Your task to perform on an android device: Do I have any events today? Image 0: 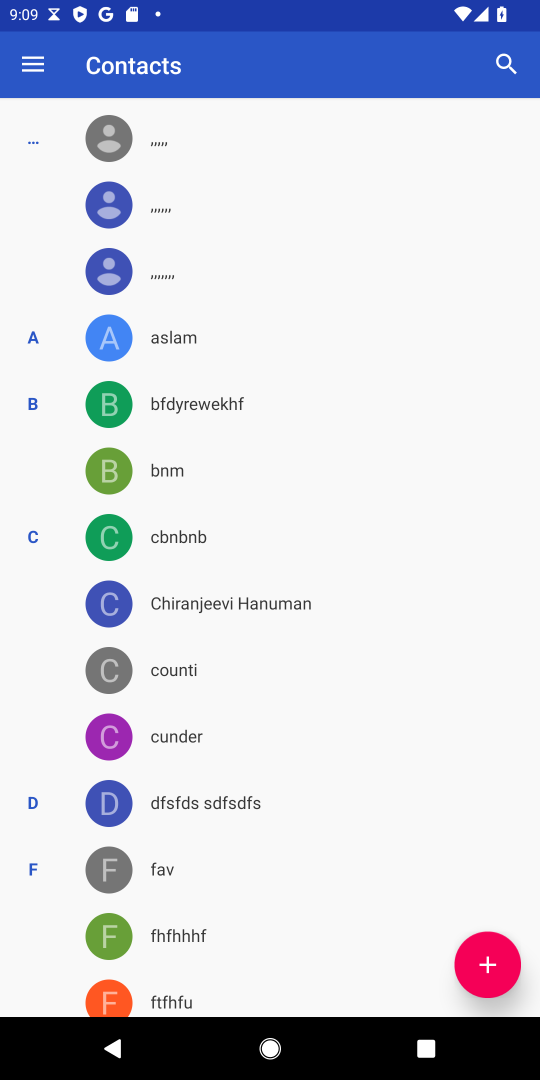
Step 0: press home button
Your task to perform on an android device: Do I have any events today? Image 1: 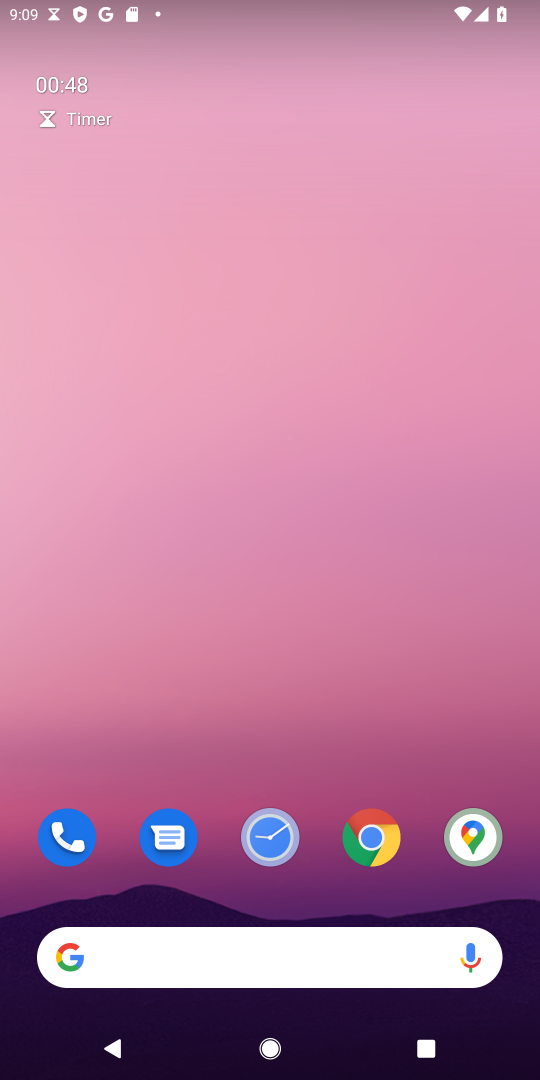
Step 1: drag from (320, 872) to (313, 141)
Your task to perform on an android device: Do I have any events today? Image 2: 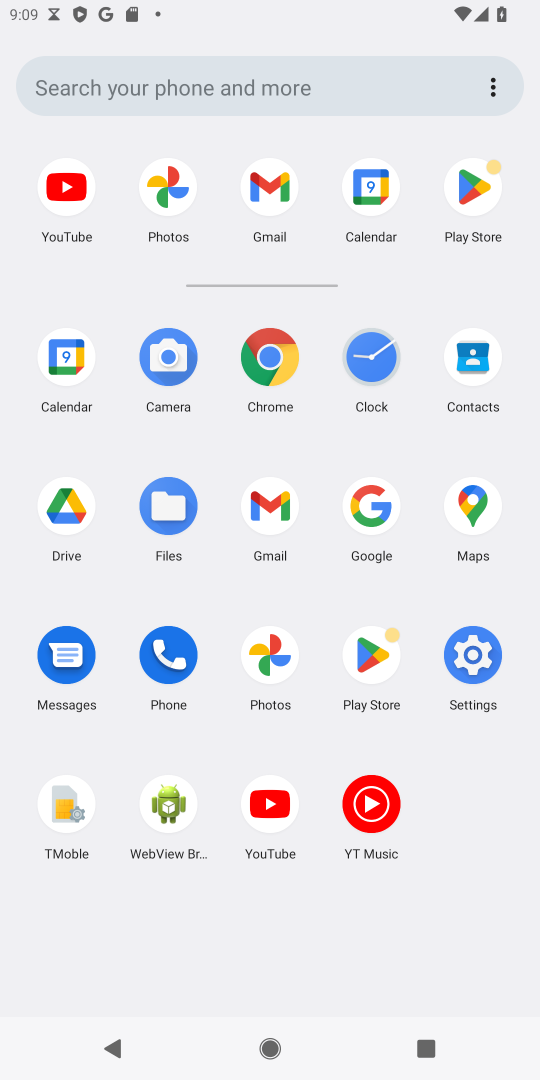
Step 2: click (59, 353)
Your task to perform on an android device: Do I have any events today? Image 3: 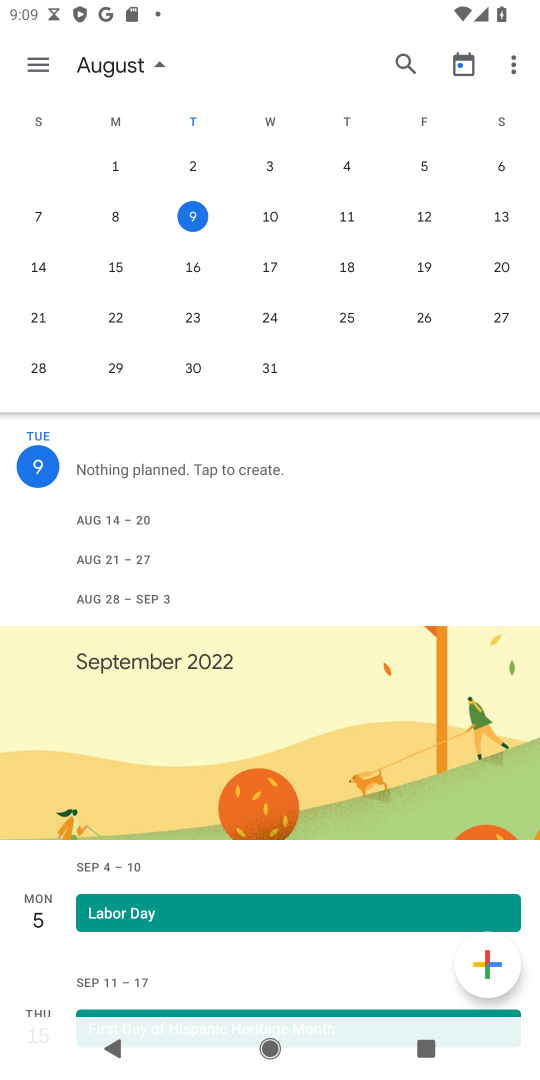
Step 3: click (34, 62)
Your task to perform on an android device: Do I have any events today? Image 4: 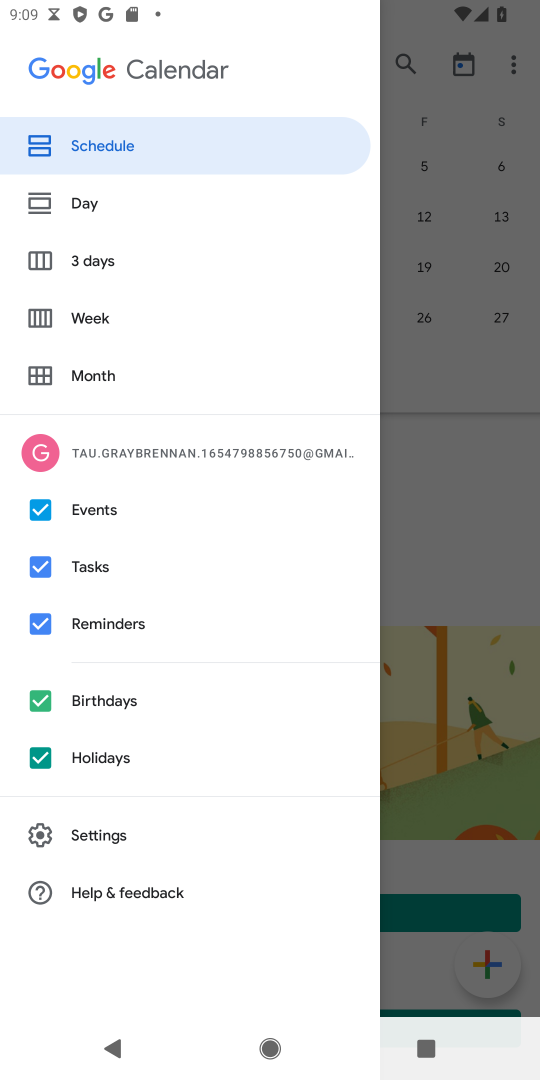
Step 4: click (40, 756)
Your task to perform on an android device: Do I have any events today? Image 5: 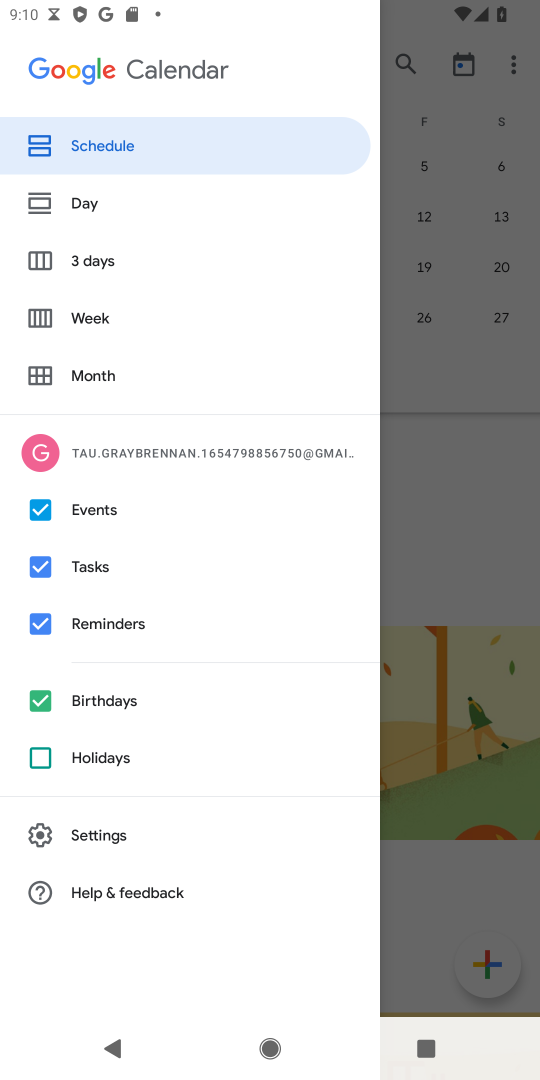
Step 5: click (40, 697)
Your task to perform on an android device: Do I have any events today? Image 6: 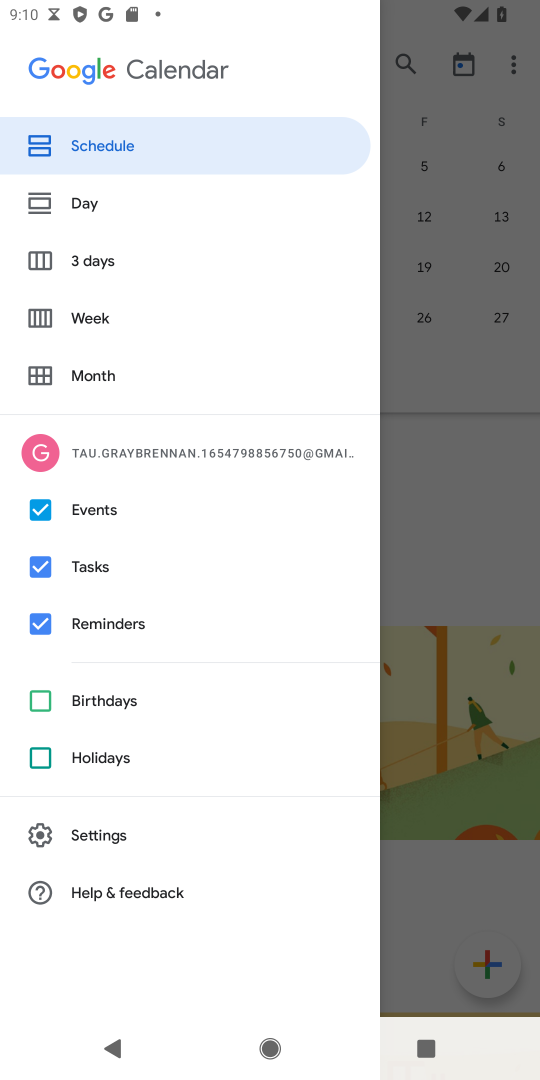
Step 6: click (37, 615)
Your task to perform on an android device: Do I have any events today? Image 7: 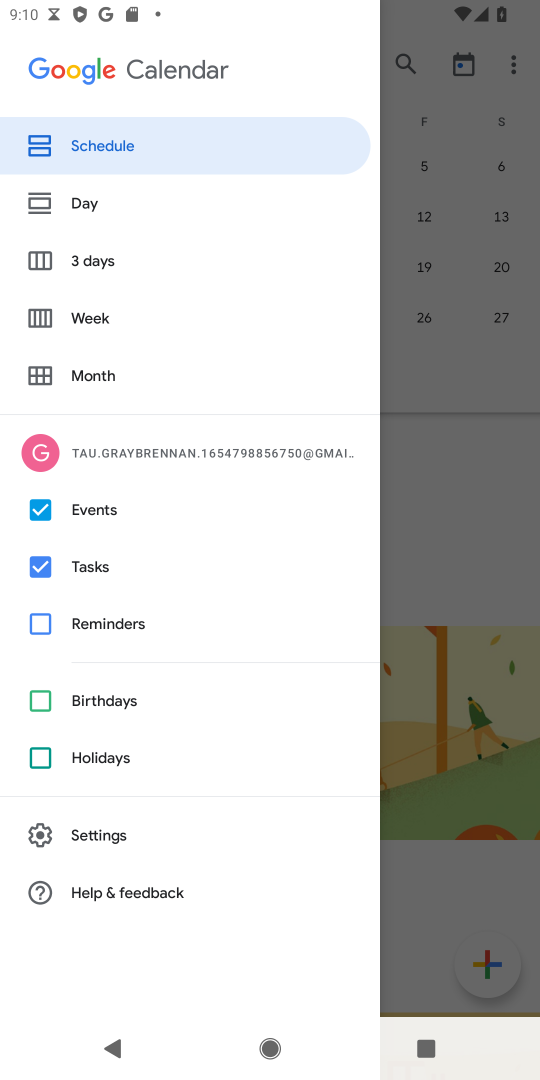
Step 7: click (35, 565)
Your task to perform on an android device: Do I have any events today? Image 8: 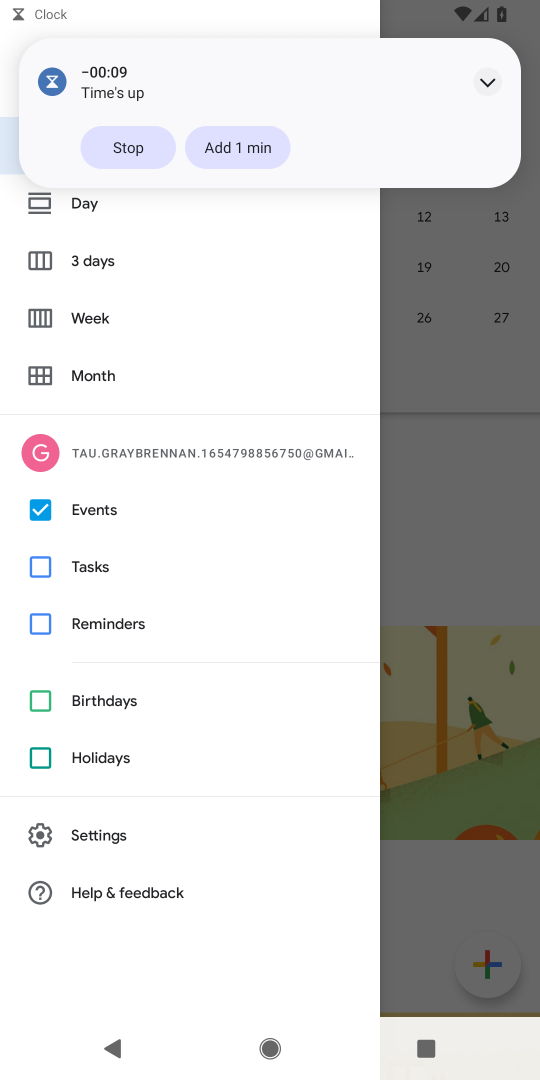
Step 8: click (119, 145)
Your task to perform on an android device: Do I have any events today? Image 9: 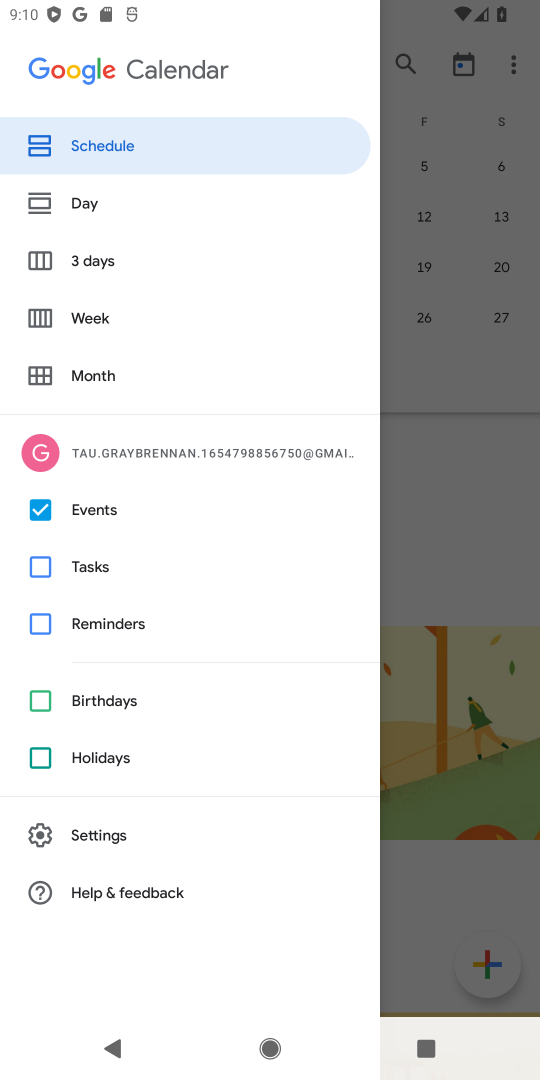
Step 9: click (94, 202)
Your task to perform on an android device: Do I have any events today? Image 10: 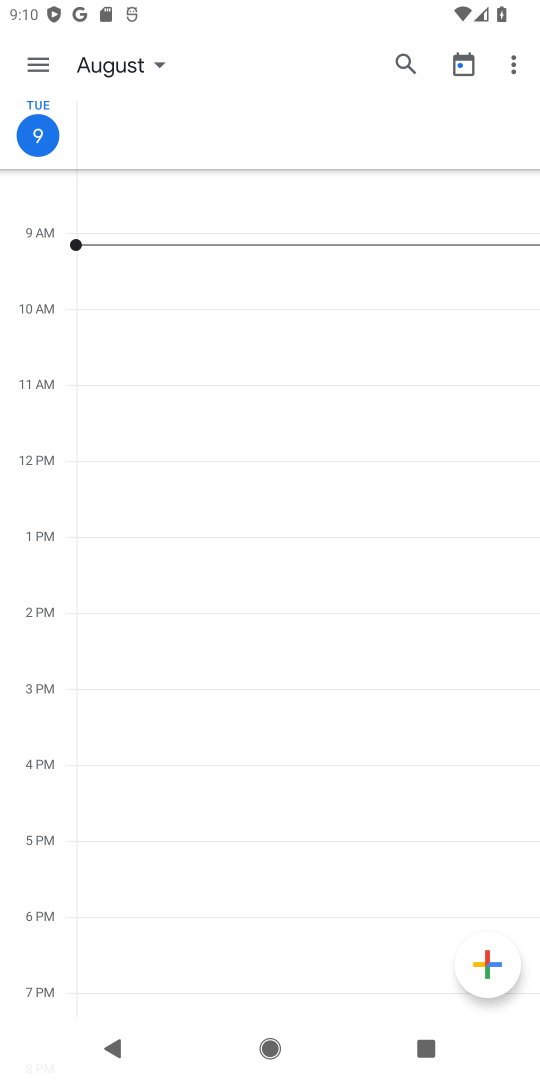
Step 10: task complete